Your task to perform on an android device: turn off improve location accuracy Image 0: 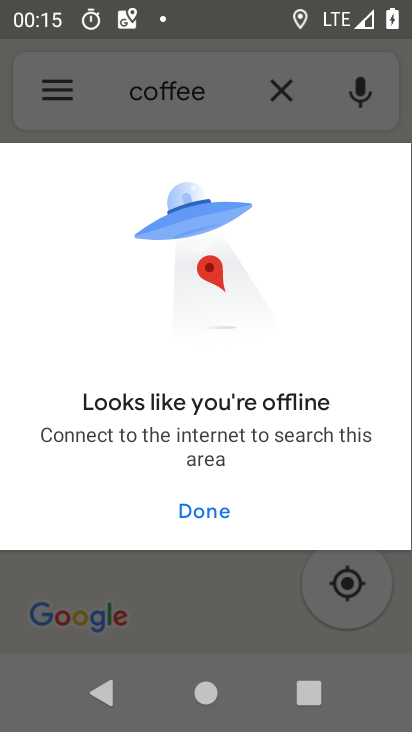
Step 0: drag from (213, 499) to (270, 104)
Your task to perform on an android device: turn off improve location accuracy Image 1: 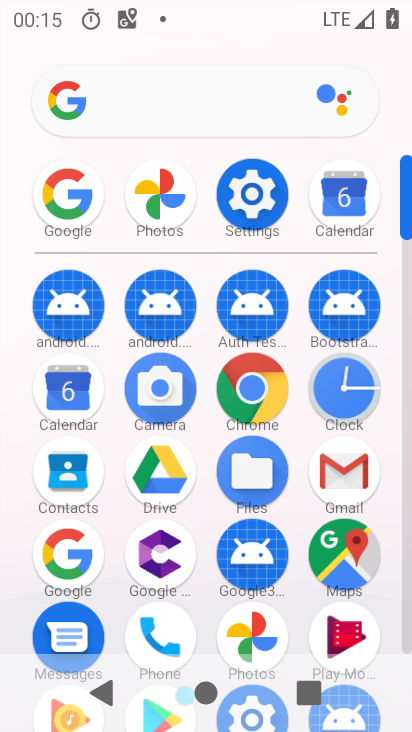
Step 1: click (250, 206)
Your task to perform on an android device: turn off improve location accuracy Image 2: 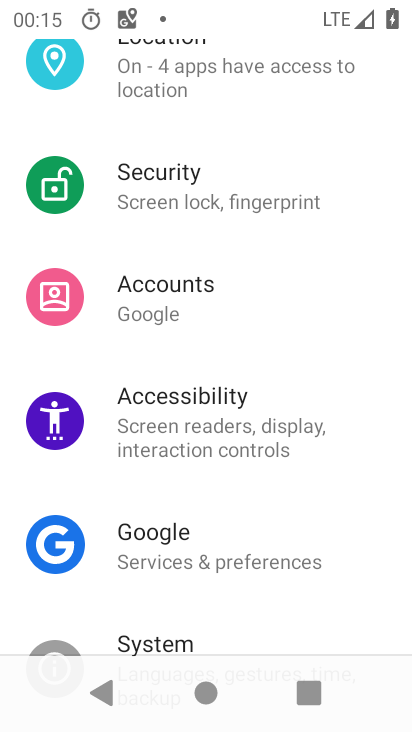
Step 2: drag from (157, 632) to (163, 262)
Your task to perform on an android device: turn off improve location accuracy Image 3: 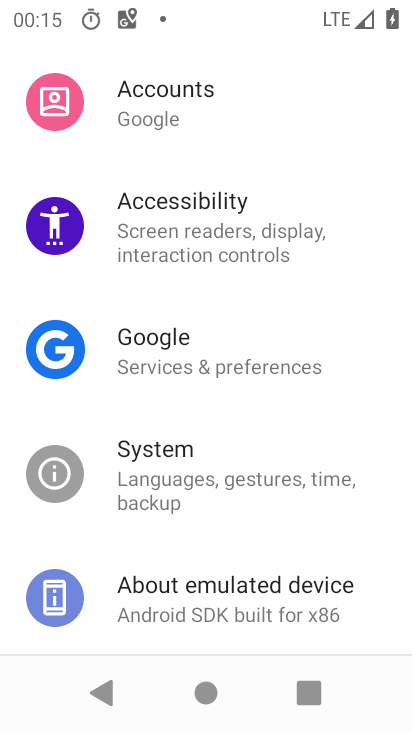
Step 3: drag from (183, 572) to (190, 319)
Your task to perform on an android device: turn off improve location accuracy Image 4: 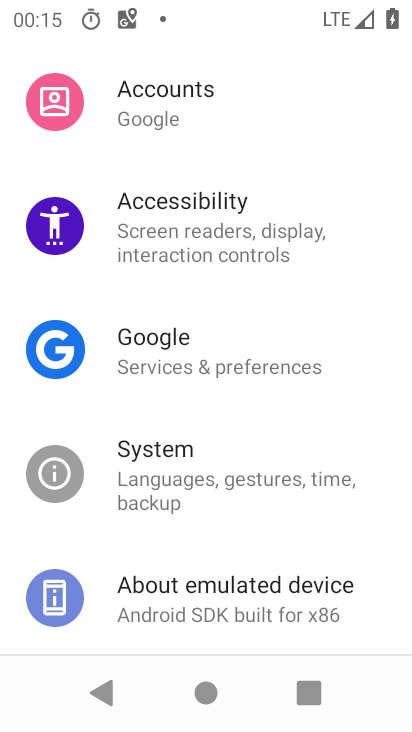
Step 4: drag from (242, 126) to (255, 563)
Your task to perform on an android device: turn off improve location accuracy Image 5: 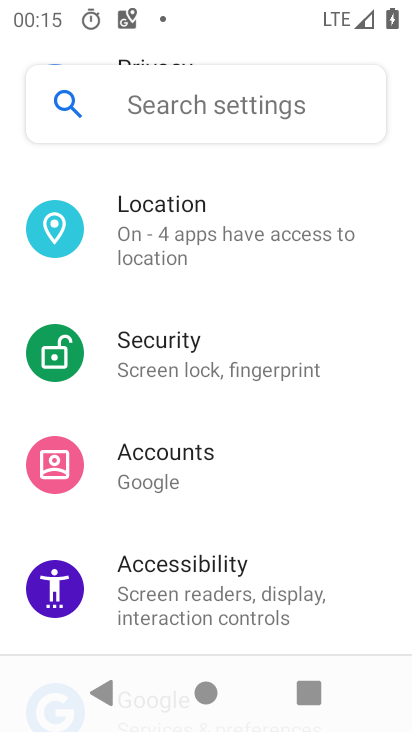
Step 5: click (213, 238)
Your task to perform on an android device: turn off improve location accuracy Image 6: 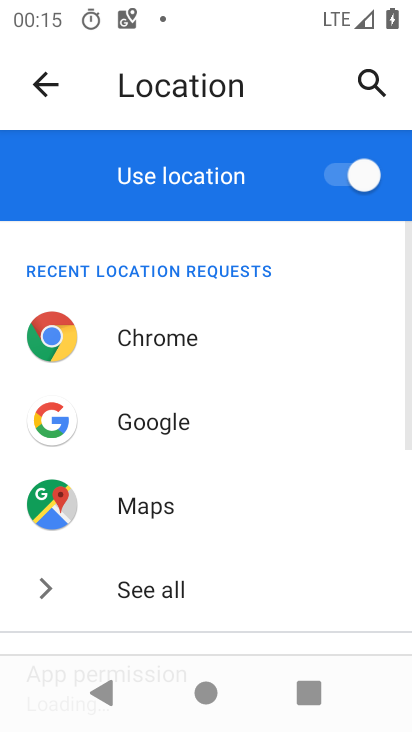
Step 6: drag from (145, 607) to (157, 243)
Your task to perform on an android device: turn off improve location accuracy Image 7: 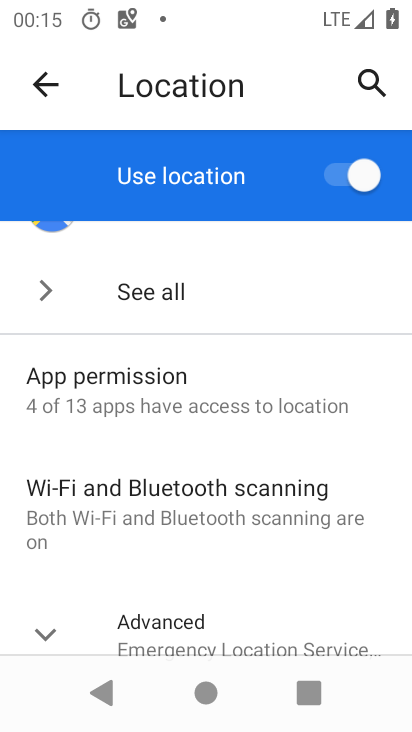
Step 7: click (154, 637)
Your task to perform on an android device: turn off improve location accuracy Image 8: 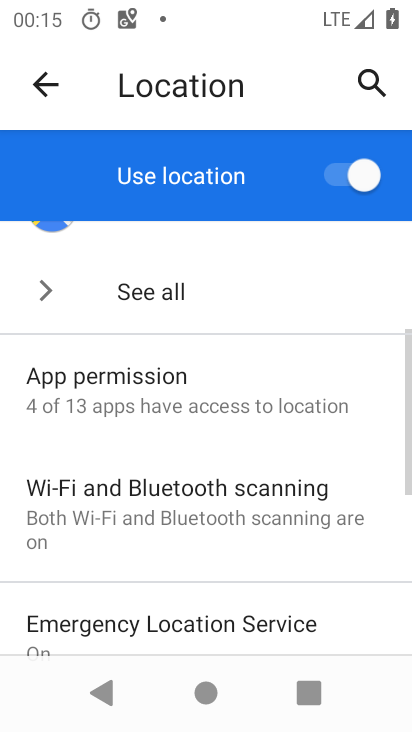
Step 8: drag from (259, 642) to (281, 383)
Your task to perform on an android device: turn off improve location accuracy Image 9: 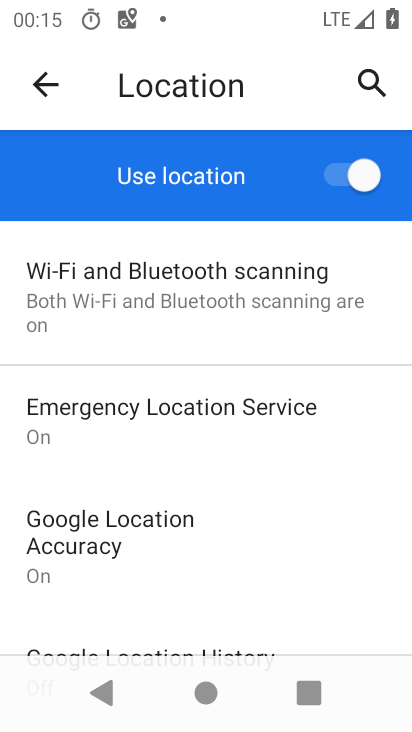
Step 9: click (108, 556)
Your task to perform on an android device: turn off improve location accuracy Image 10: 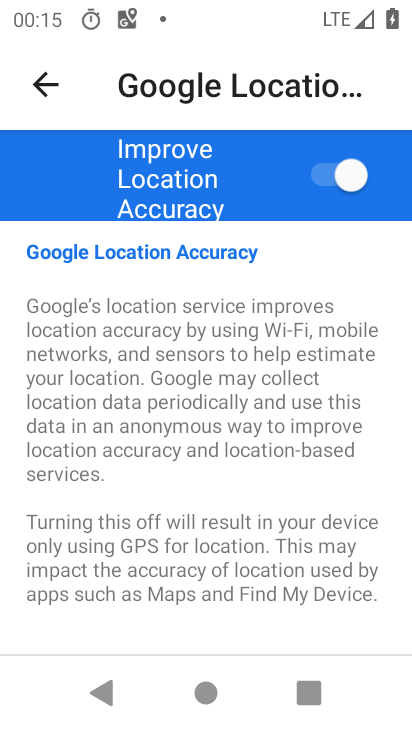
Step 10: click (327, 175)
Your task to perform on an android device: turn off improve location accuracy Image 11: 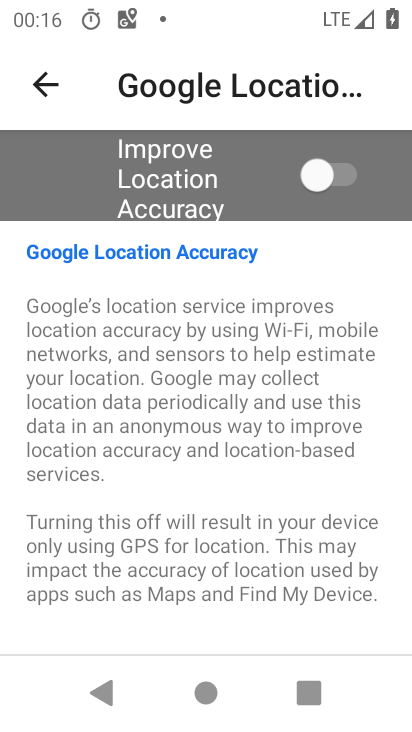
Step 11: task complete